Your task to perform on an android device: Toggle the flashlight Image 0: 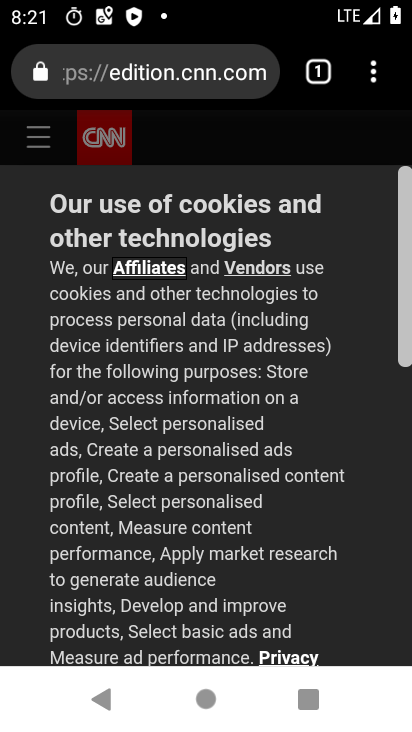
Step 0: press home button
Your task to perform on an android device: Toggle the flashlight Image 1: 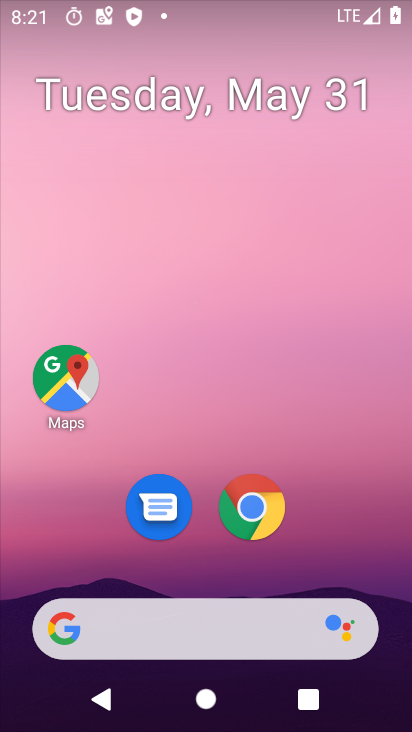
Step 1: drag from (13, 693) to (268, 243)
Your task to perform on an android device: Toggle the flashlight Image 2: 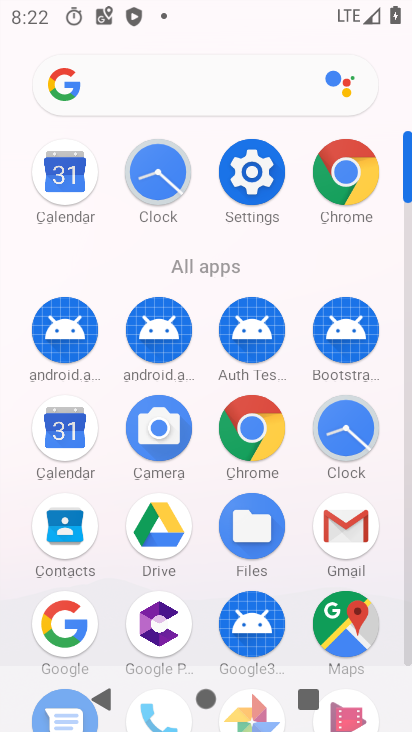
Step 2: click (258, 174)
Your task to perform on an android device: Toggle the flashlight Image 3: 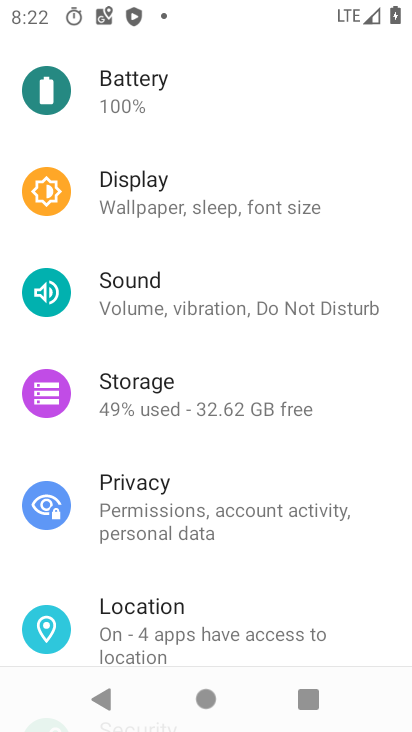
Step 3: task complete